Your task to perform on an android device: open app "VLC for Android" Image 0: 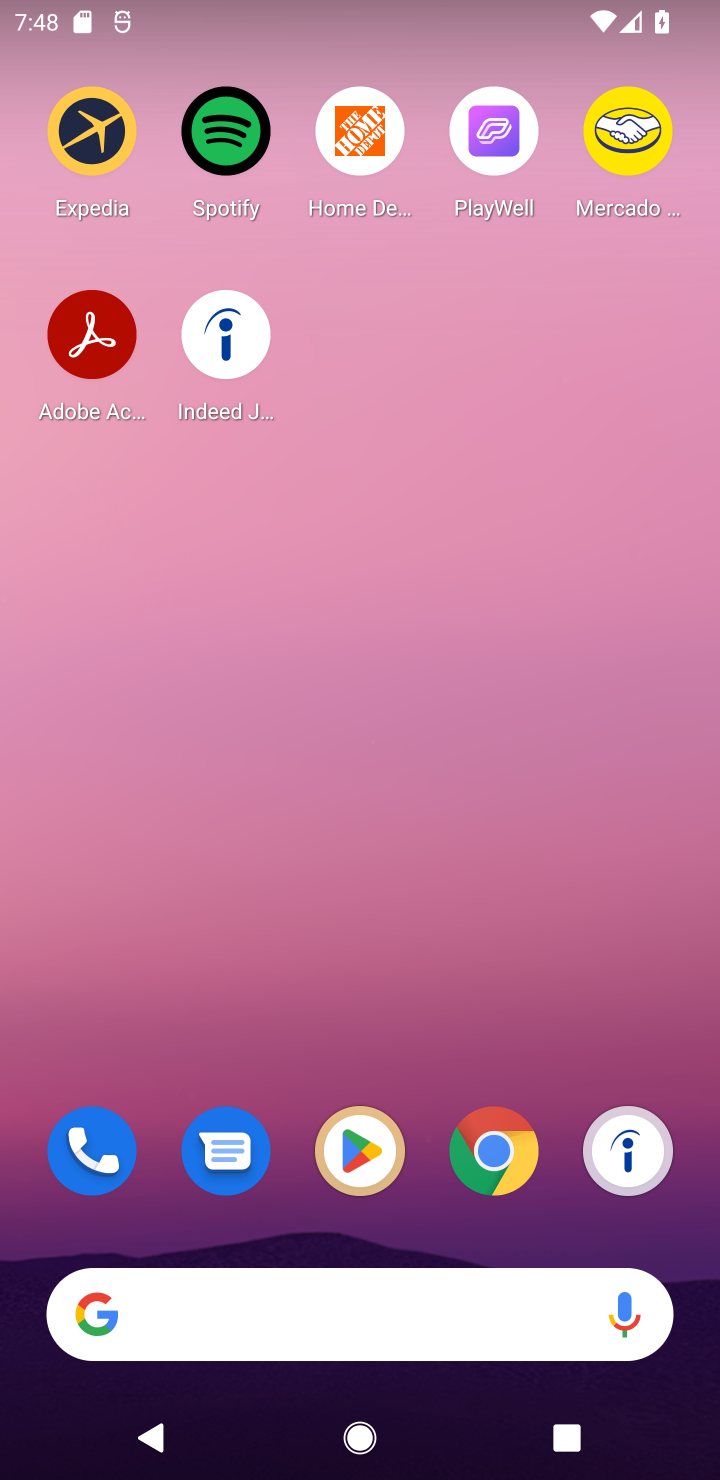
Step 0: click (366, 1146)
Your task to perform on an android device: open app "VLC for Android" Image 1: 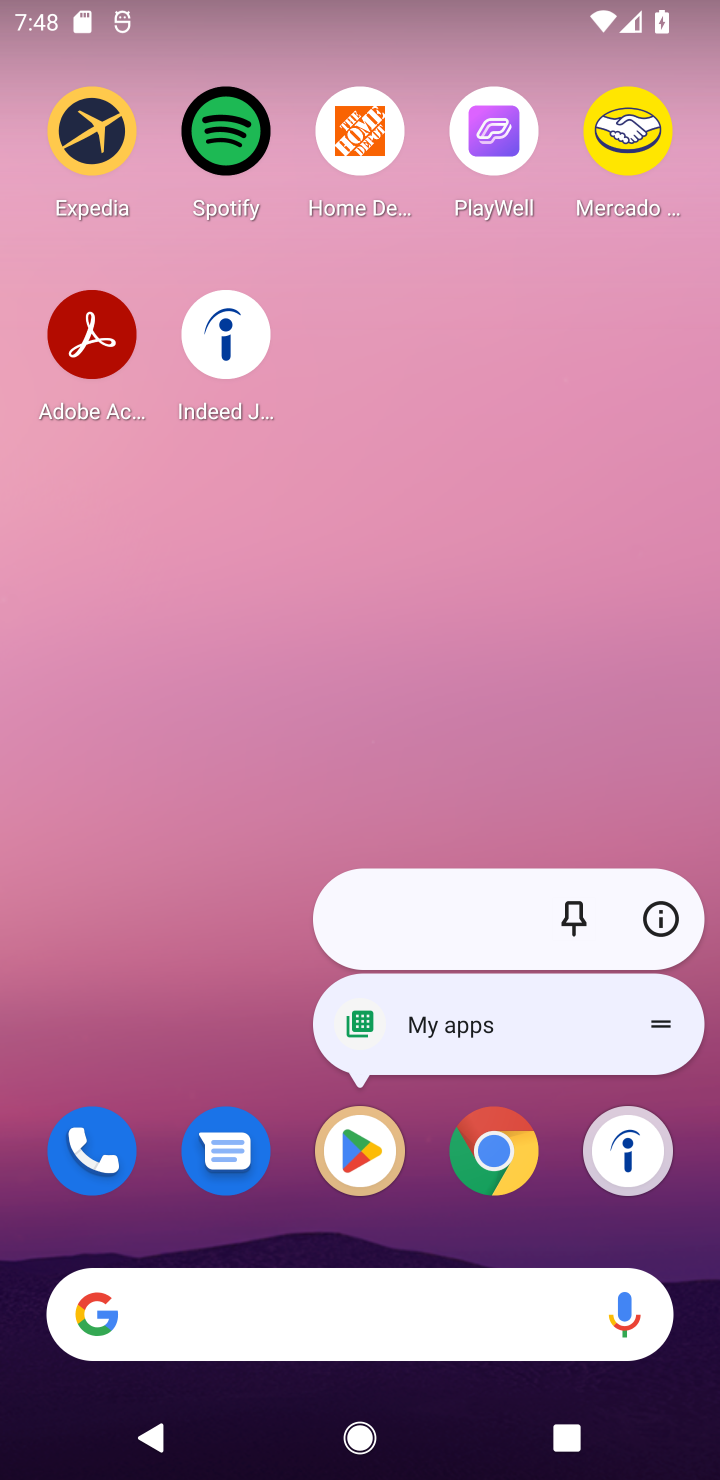
Step 1: click (366, 1146)
Your task to perform on an android device: open app "VLC for Android" Image 2: 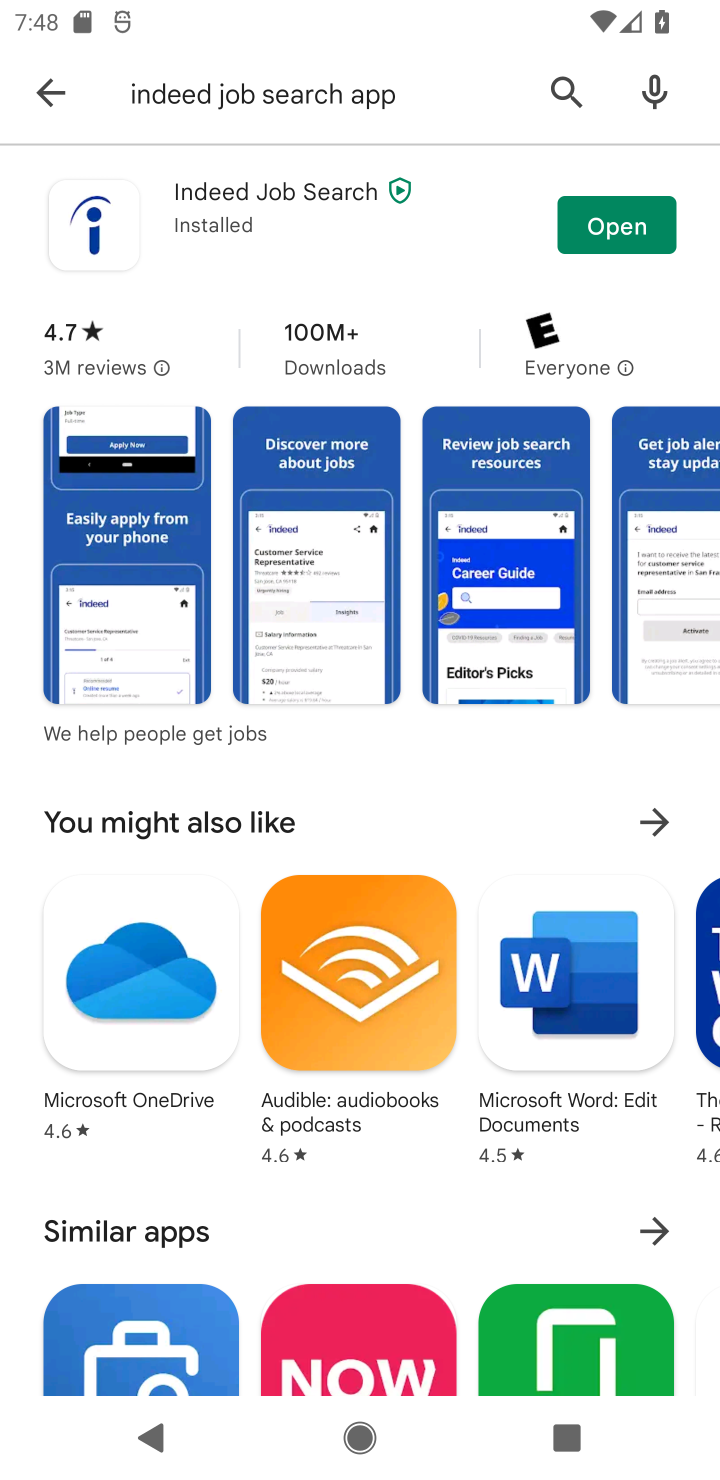
Step 2: click (553, 90)
Your task to perform on an android device: open app "VLC for Android" Image 3: 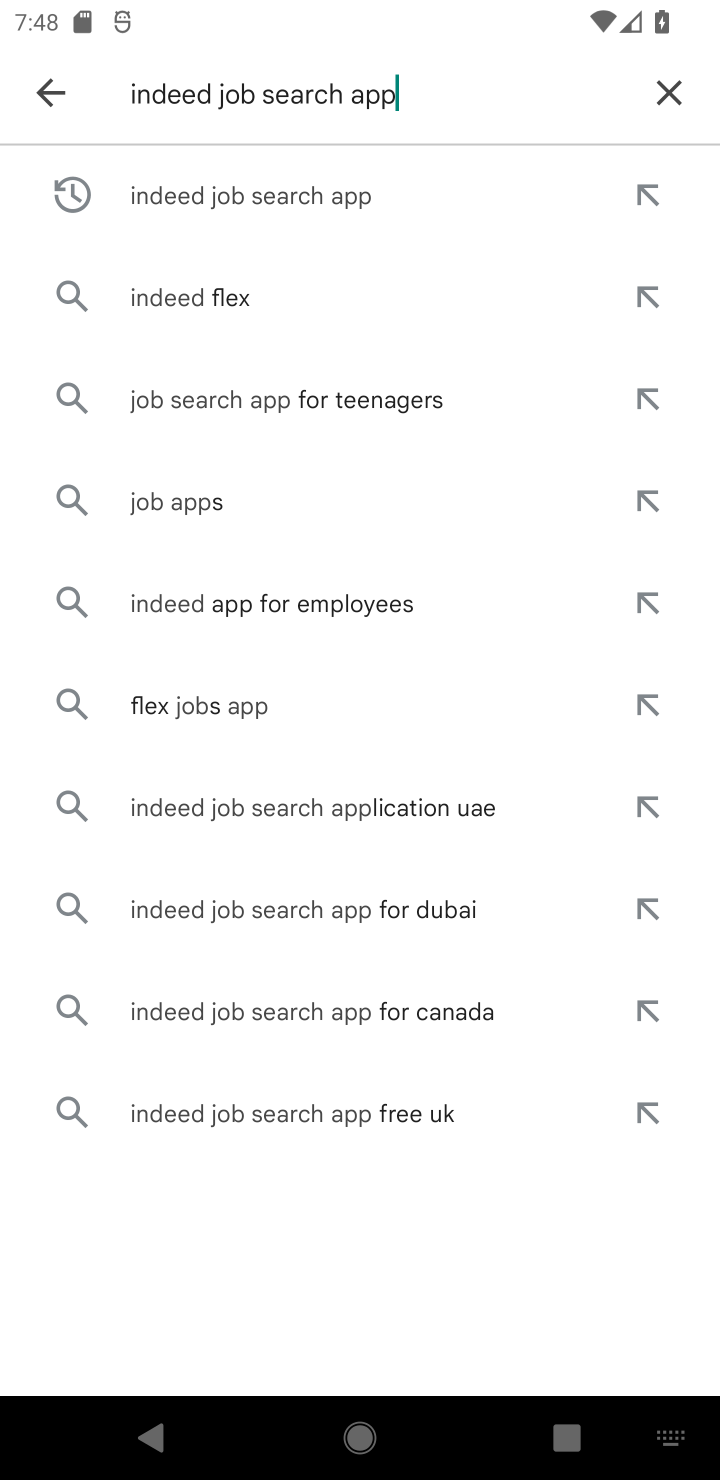
Step 3: click (665, 85)
Your task to perform on an android device: open app "VLC for Android" Image 4: 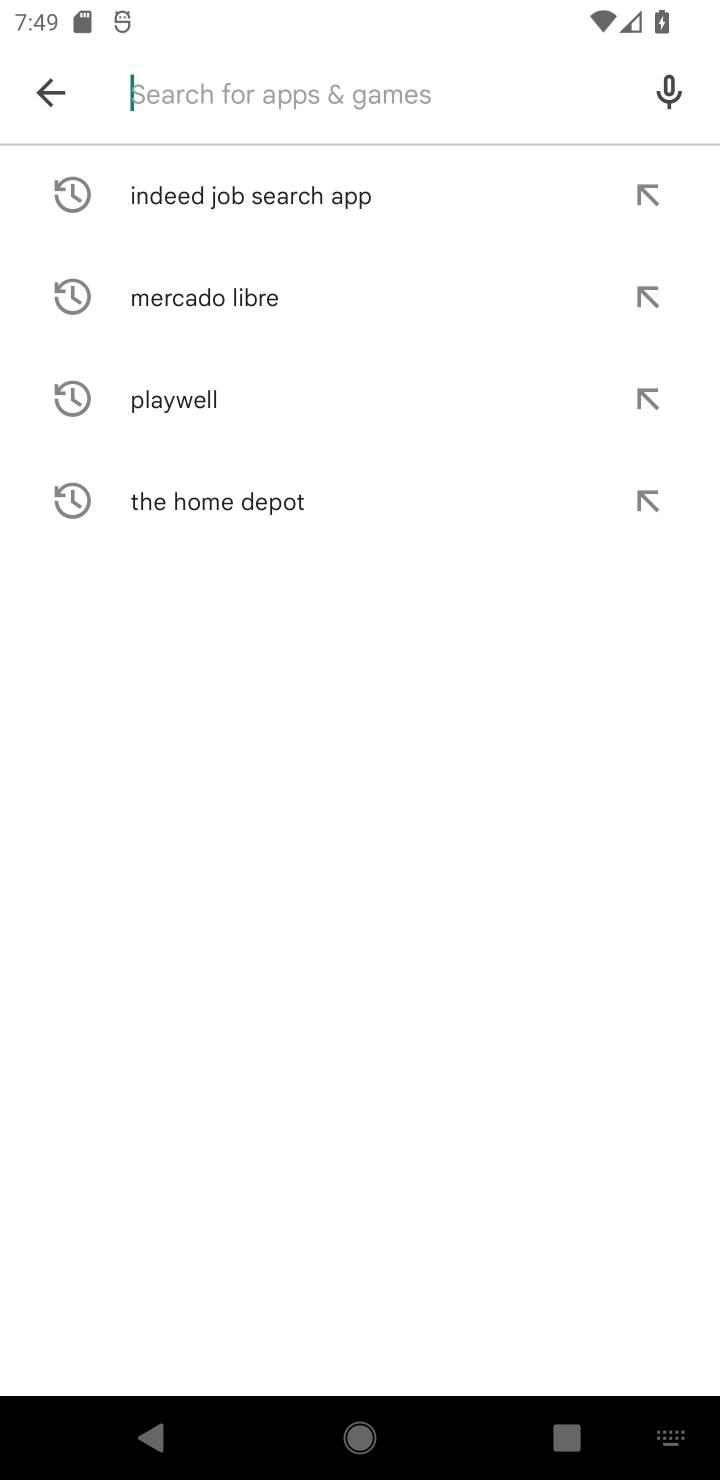
Step 4: type "VLC for Android"
Your task to perform on an android device: open app "VLC for Android" Image 5: 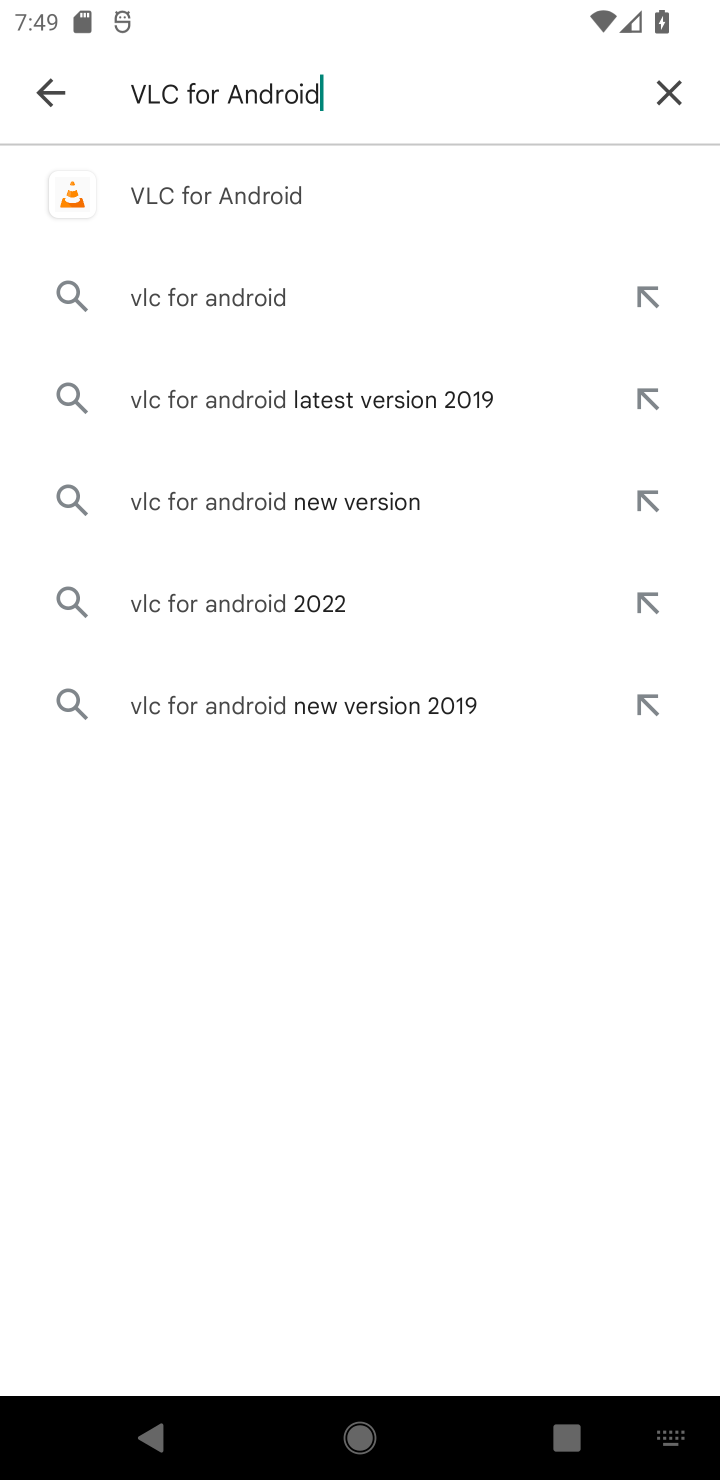
Step 5: click (189, 178)
Your task to perform on an android device: open app "VLC for Android" Image 6: 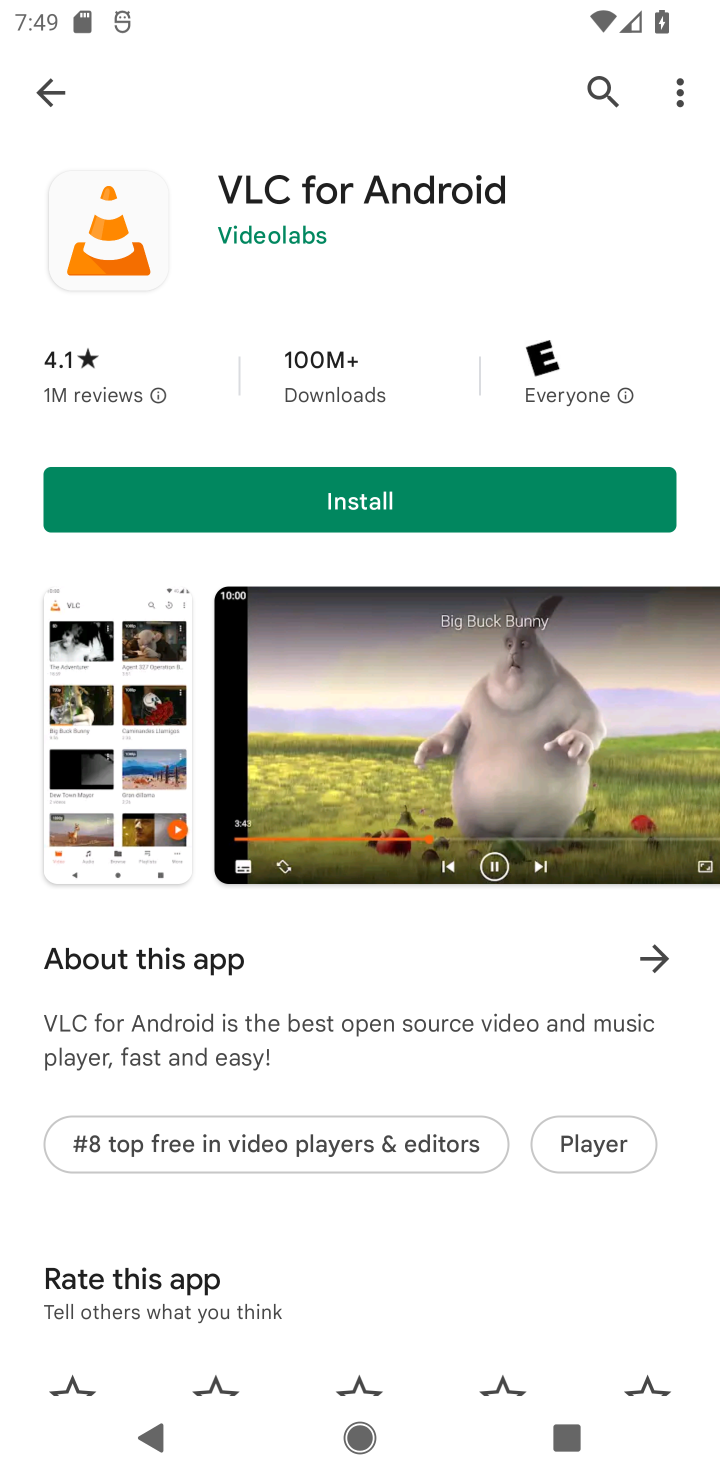
Step 6: task complete